Your task to perform on an android device: Open Chrome and go to settings Image 0: 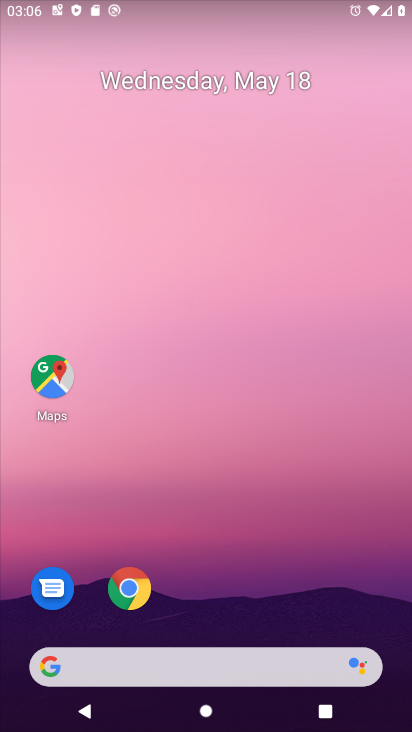
Step 0: click (140, 591)
Your task to perform on an android device: Open Chrome and go to settings Image 1: 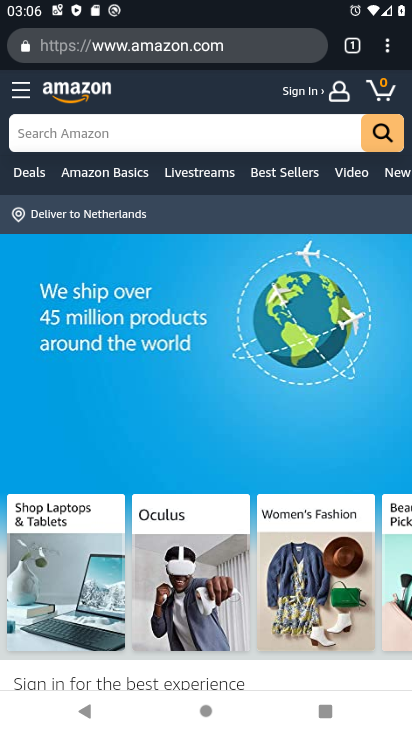
Step 1: click (383, 46)
Your task to perform on an android device: Open Chrome and go to settings Image 2: 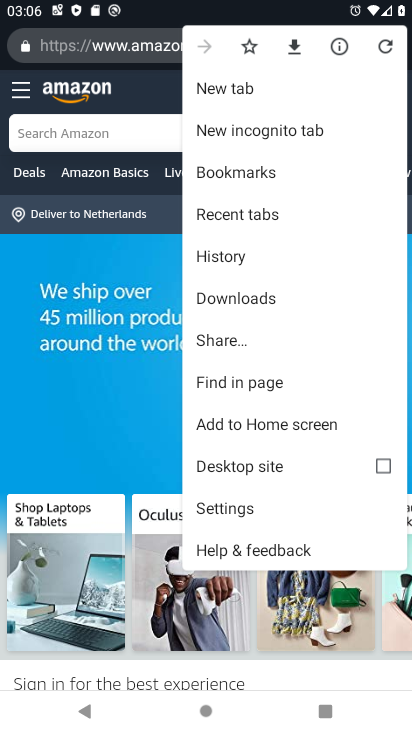
Step 2: click (222, 514)
Your task to perform on an android device: Open Chrome and go to settings Image 3: 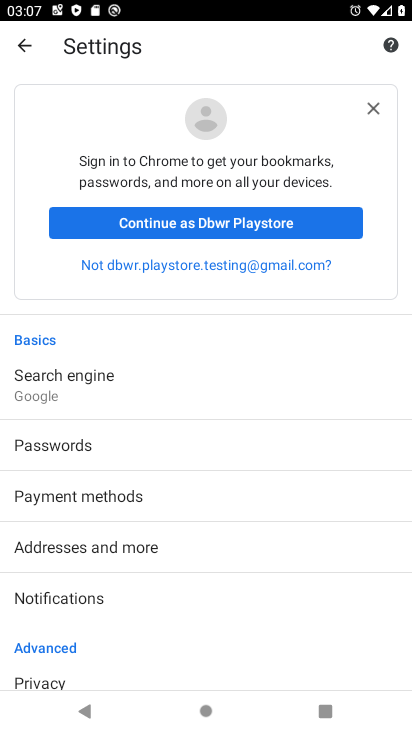
Step 3: task complete